Your task to perform on an android device: delete browsing data in the chrome app Image 0: 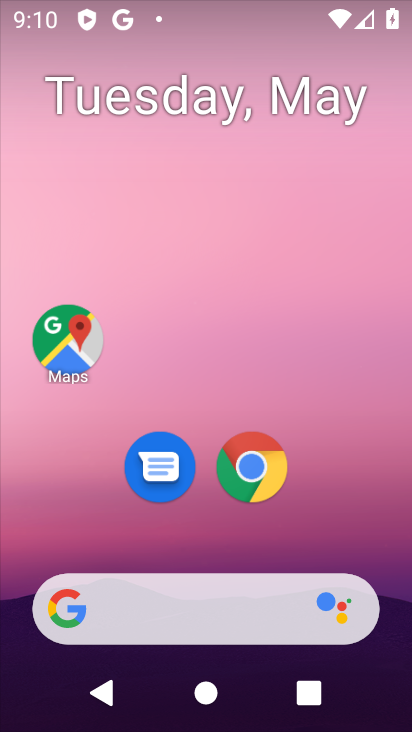
Step 0: drag from (347, 469) to (236, 10)
Your task to perform on an android device: delete browsing data in the chrome app Image 1: 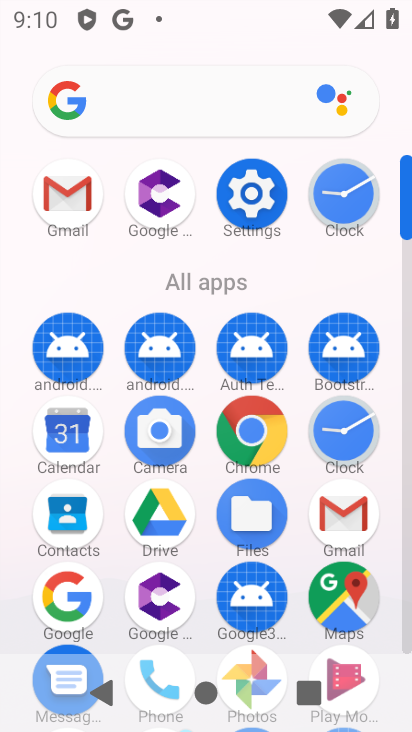
Step 1: drag from (11, 585) to (11, 314)
Your task to perform on an android device: delete browsing data in the chrome app Image 2: 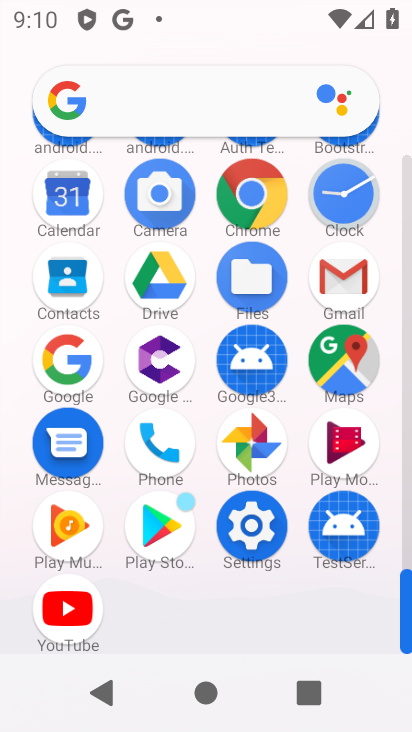
Step 2: click (251, 190)
Your task to perform on an android device: delete browsing data in the chrome app Image 3: 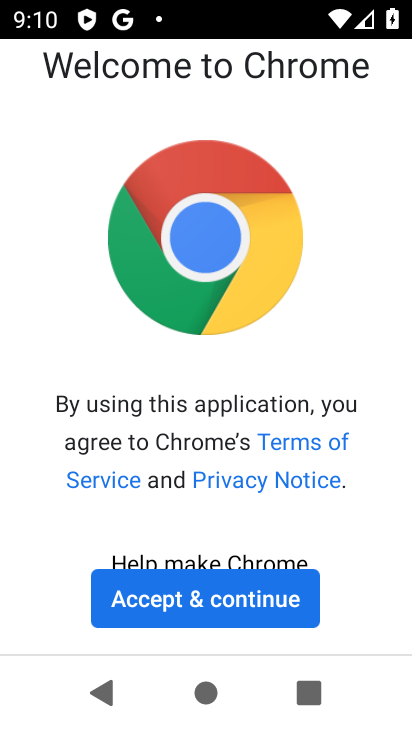
Step 3: click (257, 590)
Your task to perform on an android device: delete browsing data in the chrome app Image 4: 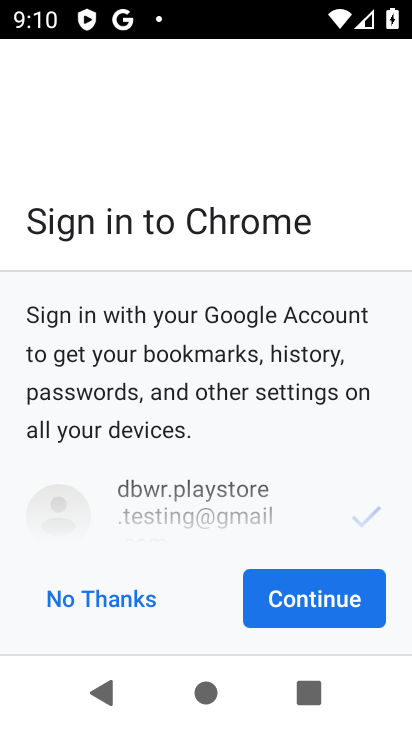
Step 4: click (307, 597)
Your task to perform on an android device: delete browsing data in the chrome app Image 5: 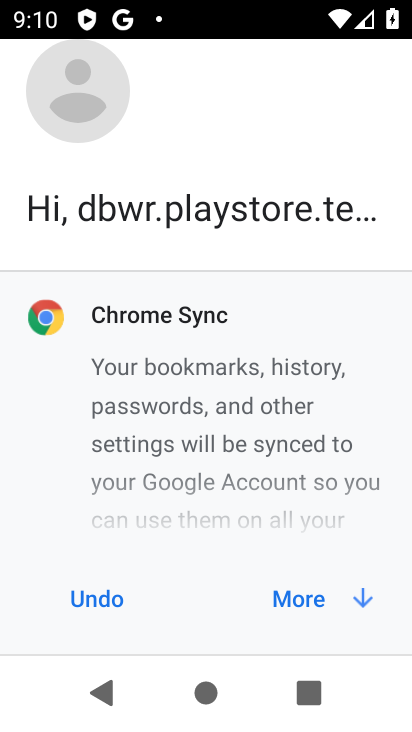
Step 5: click (307, 597)
Your task to perform on an android device: delete browsing data in the chrome app Image 6: 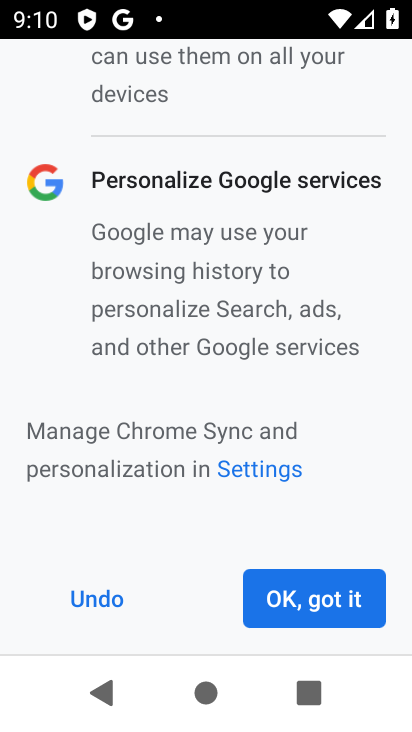
Step 6: click (307, 597)
Your task to perform on an android device: delete browsing data in the chrome app Image 7: 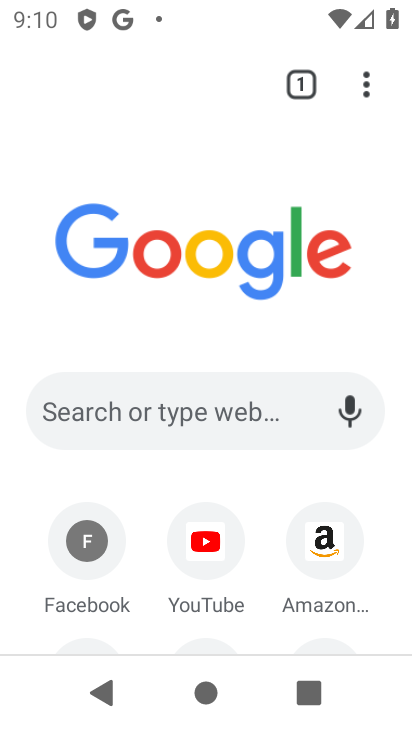
Step 7: drag from (370, 84) to (88, 470)
Your task to perform on an android device: delete browsing data in the chrome app Image 8: 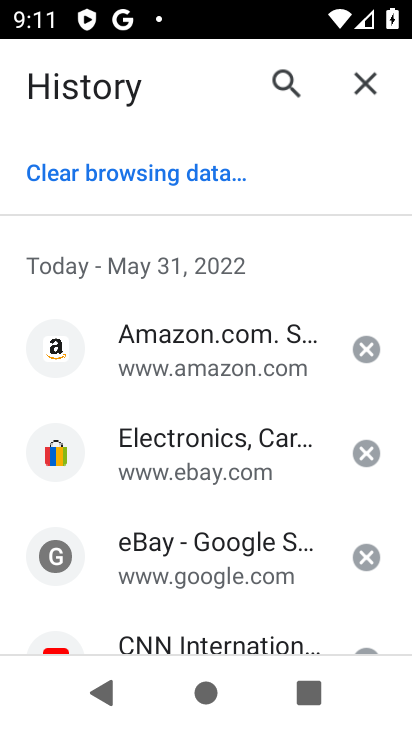
Step 8: click (143, 176)
Your task to perform on an android device: delete browsing data in the chrome app Image 9: 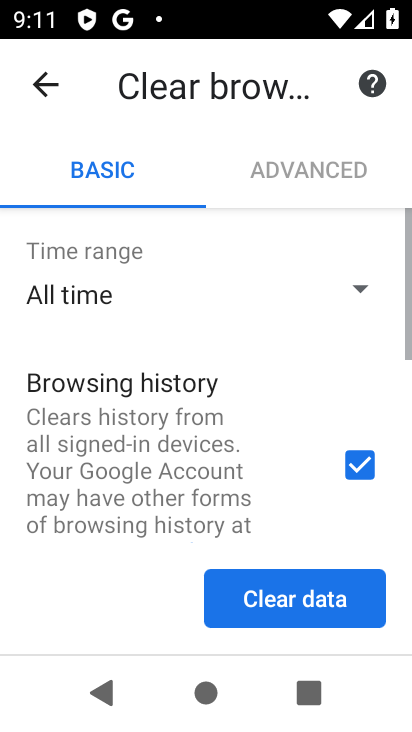
Step 9: click (305, 603)
Your task to perform on an android device: delete browsing data in the chrome app Image 10: 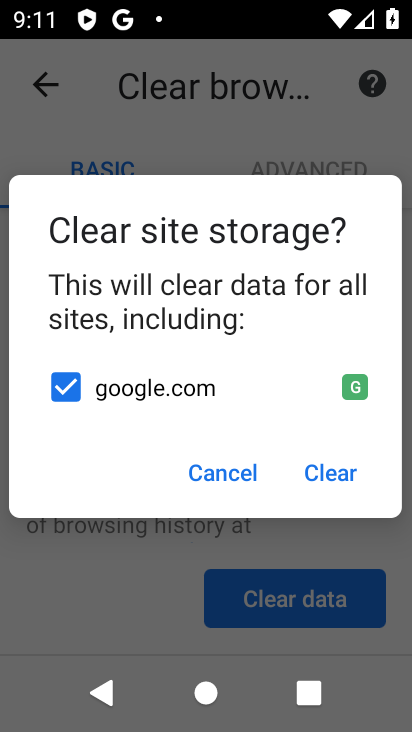
Step 10: click (332, 467)
Your task to perform on an android device: delete browsing data in the chrome app Image 11: 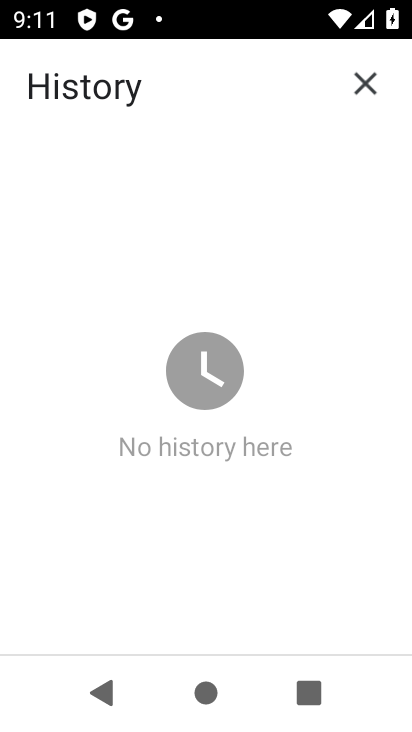
Step 11: task complete